Your task to perform on an android device: change the clock display to show seconds Image 0: 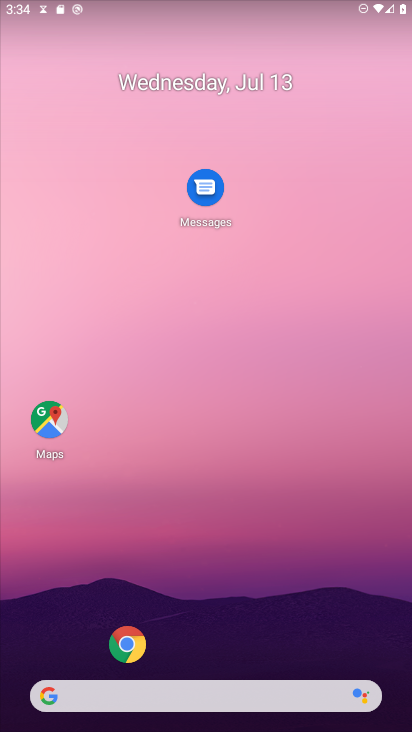
Step 0: drag from (13, 650) to (379, 424)
Your task to perform on an android device: change the clock display to show seconds Image 1: 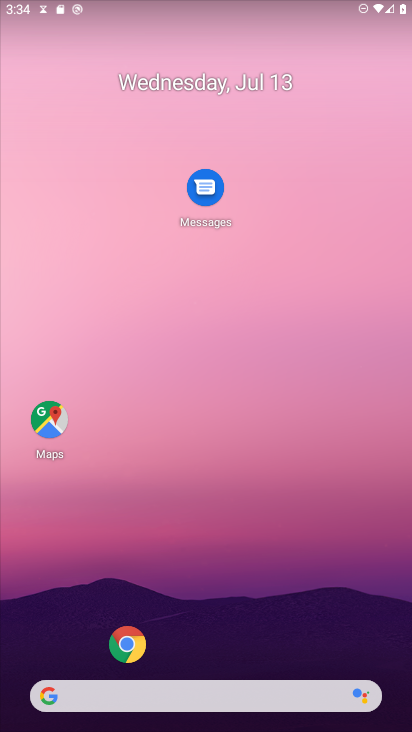
Step 1: drag from (17, 692) to (214, 215)
Your task to perform on an android device: change the clock display to show seconds Image 2: 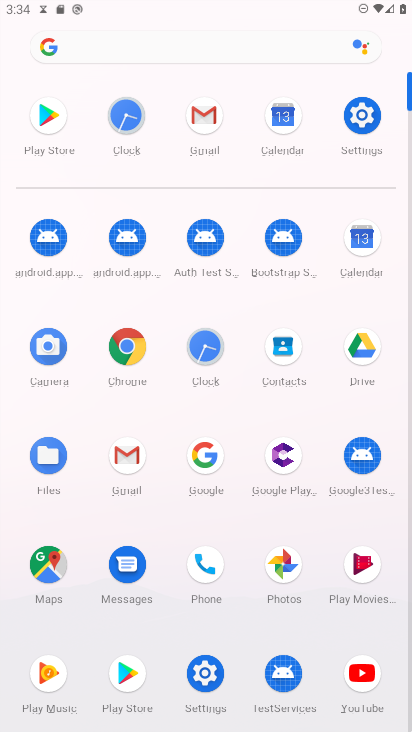
Step 2: click (186, 349)
Your task to perform on an android device: change the clock display to show seconds Image 3: 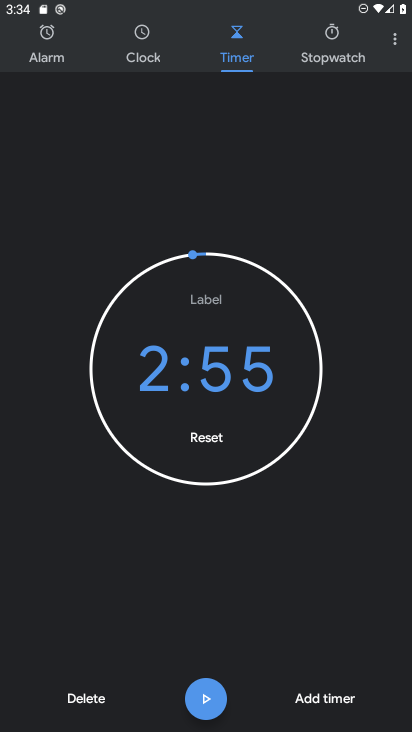
Step 3: click (131, 45)
Your task to perform on an android device: change the clock display to show seconds Image 4: 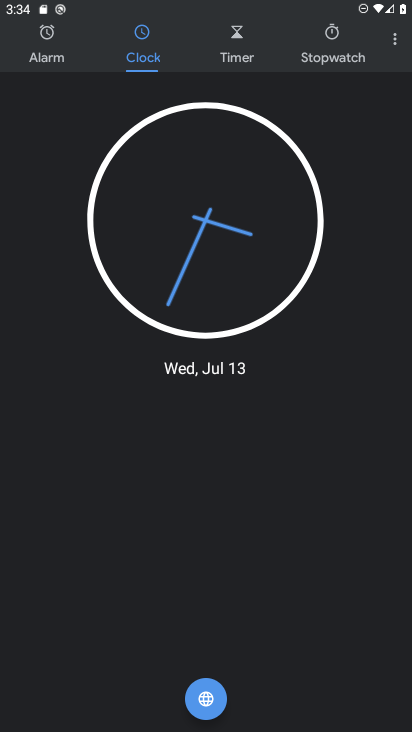
Step 4: click (393, 35)
Your task to perform on an android device: change the clock display to show seconds Image 5: 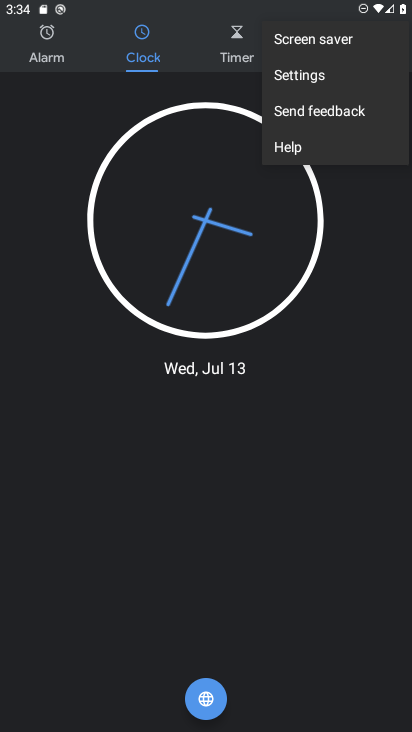
Step 5: click (317, 74)
Your task to perform on an android device: change the clock display to show seconds Image 6: 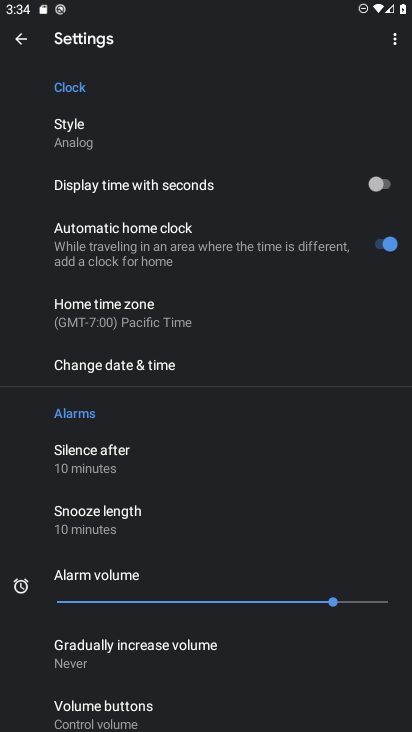
Step 6: click (145, 371)
Your task to perform on an android device: change the clock display to show seconds Image 7: 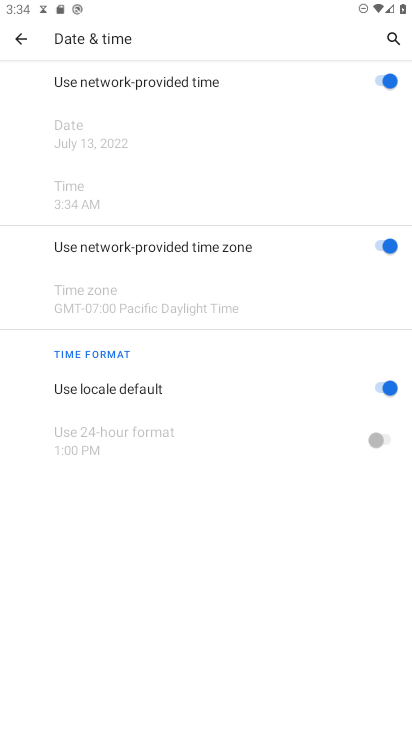
Step 7: click (379, 438)
Your task to perform on an android device: change the clock display to show seconds Image 8: 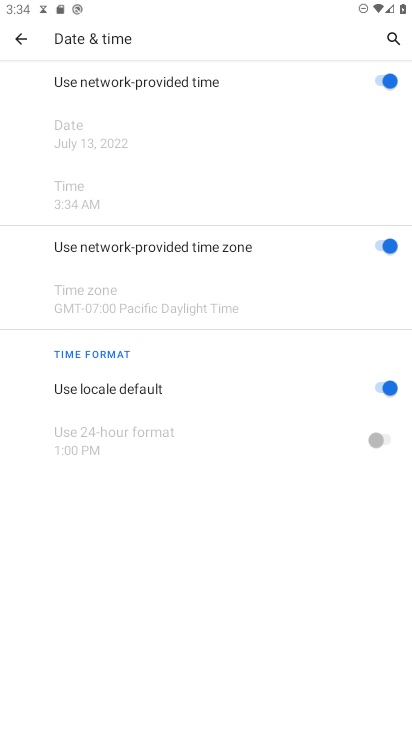
Step 8: click (393, 373)
Your task to perform on an android device: change the clock display to show seconds Image 9: 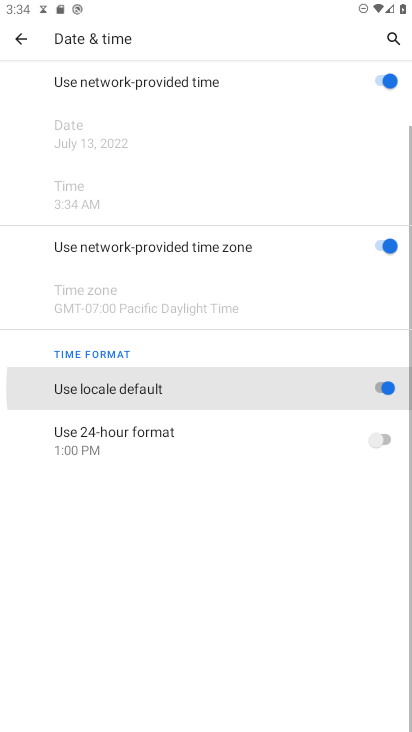
Step 9: click (387, 385)
Your task to perform on an android device: change the clock display to show seconds Image 10: 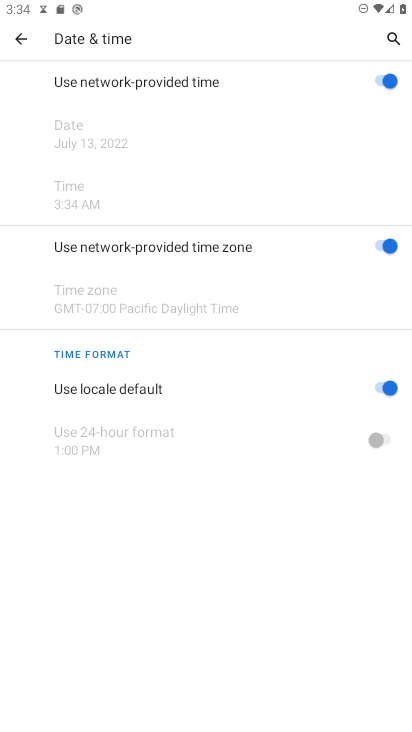
Step 10: task complete